Your task to perform on an android device: Open the phone app and click the voicemail tab. Image 0: 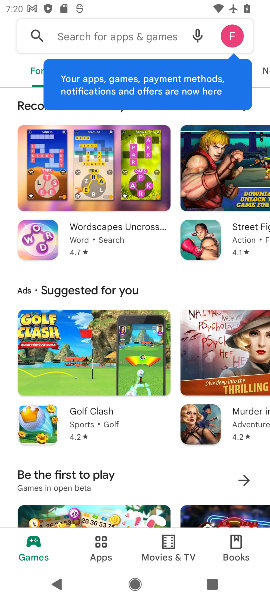
Step 0: press home button
Your task to perform on an android device: Open the phone app and click the voicemail tab. Image 1: 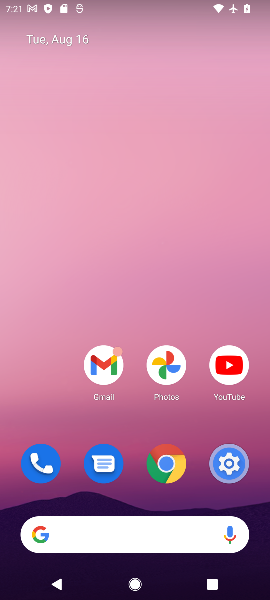
Step 1: drag from (119, 496) to (146, 1)
Your task to perform on an android device: Open the phone app and click the voicemail tab. Image 2: 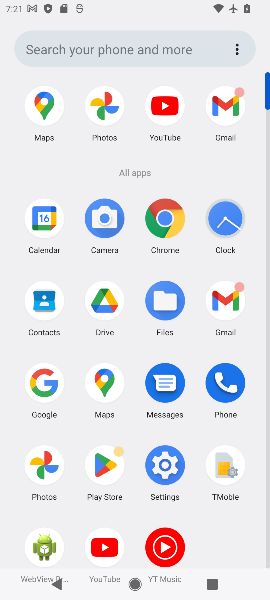
Step 2: click (229, 390)
Your task to perform on an android device: Open the phone app and click the voicemail tab. Image 3: 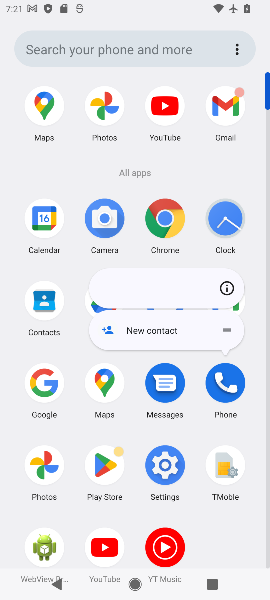
Step 3: click (231, 381)
Your task to perform on an android device: Open the phone app and click the voicemail tab. Image 4: 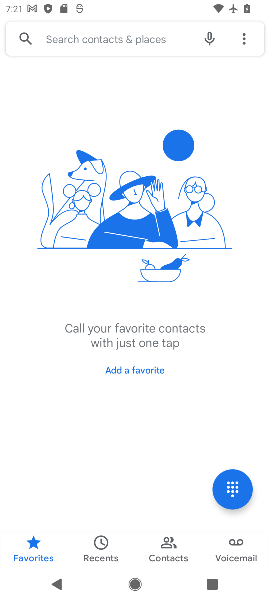
Step 4: click (242, 546)
Your task to perform on an android device: Open the phone app and click the voicemail tab. Image 5: 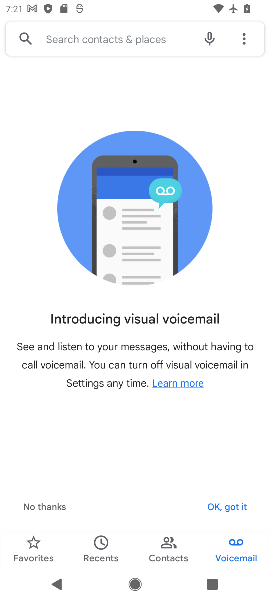
Step 5: task complete